Your task to perform on an android device: Open network settings Image 0: 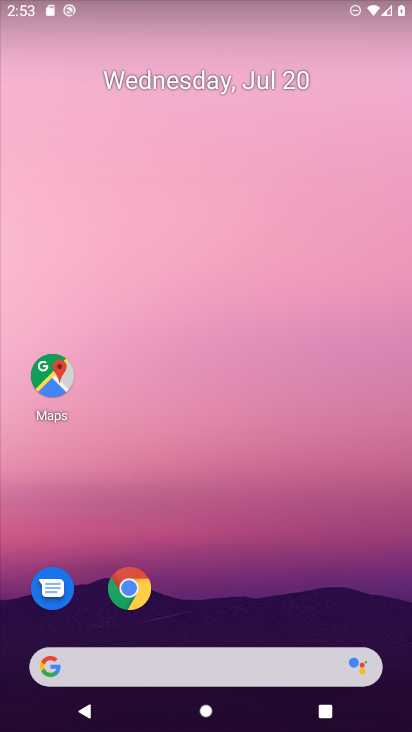
Step 0: drag from (246, 630) to (195, 18)
Your task to perform on an android device: Open network settings Image 1: 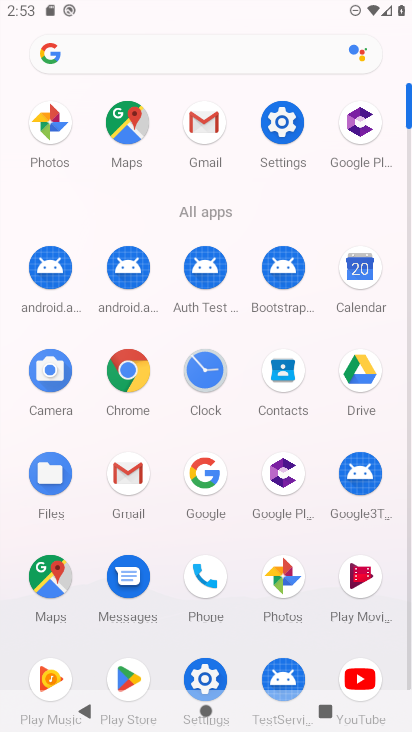
Step 1: click (278, 120)
Your task to perform on an android device: Open network settings Image 2: 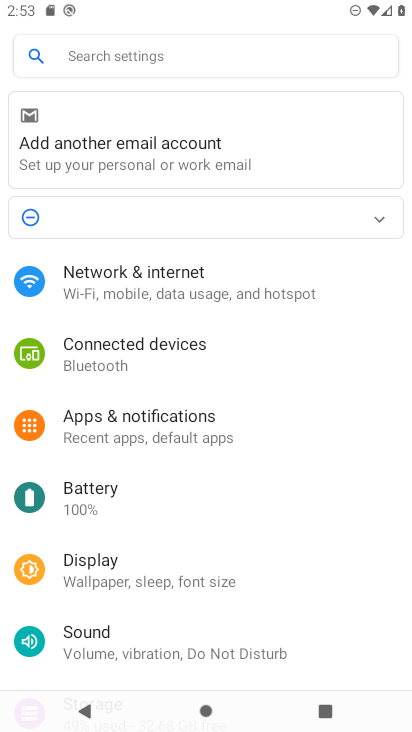
Step 2: click (132, 271)
Your task to perform on an android device: Open network settings Image 3: 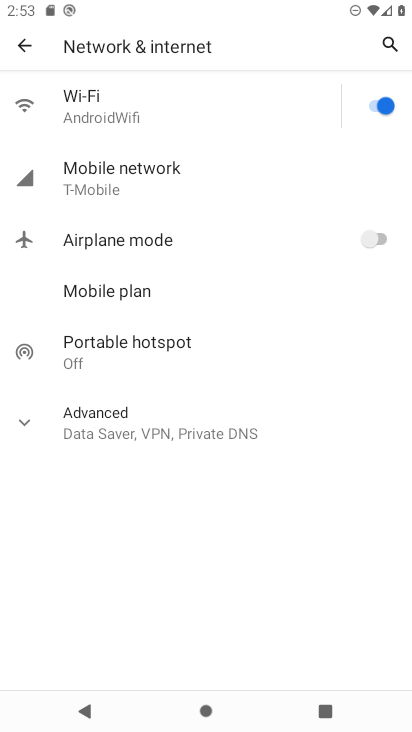
Step 3: click (112, 187)
Your task to perform on an android device: Open network settings Image 4: 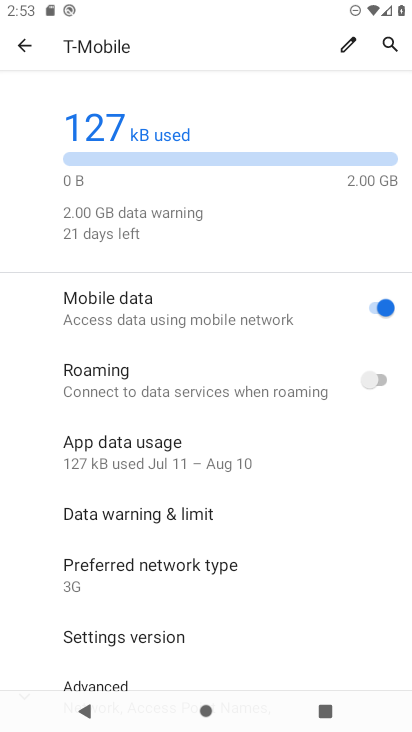
Step 4: click (72, 176)
Your task to perform on an android device: Open network settings Image 5: 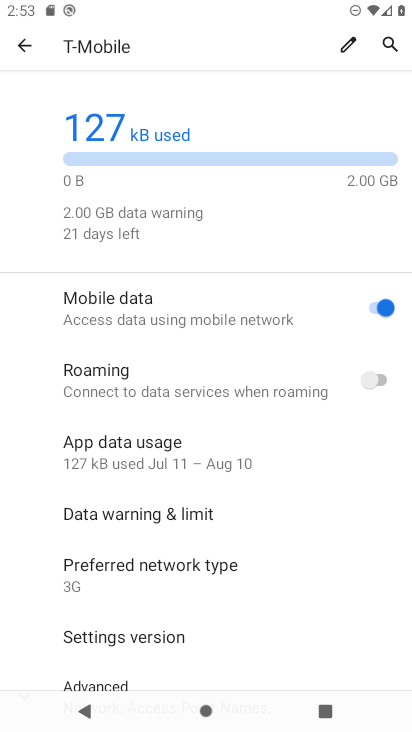
Step 5: task complete